Your task to perform on an android device: Open Google Maps Image 0: 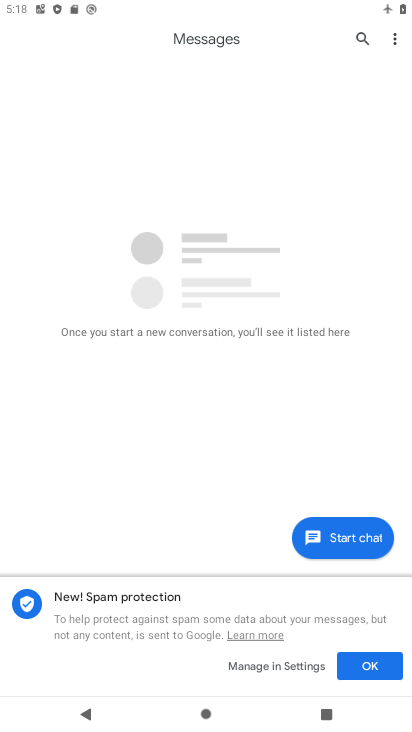
Step 0: press back button
Your task to perform on an android device: Open Google Maps Image 1: 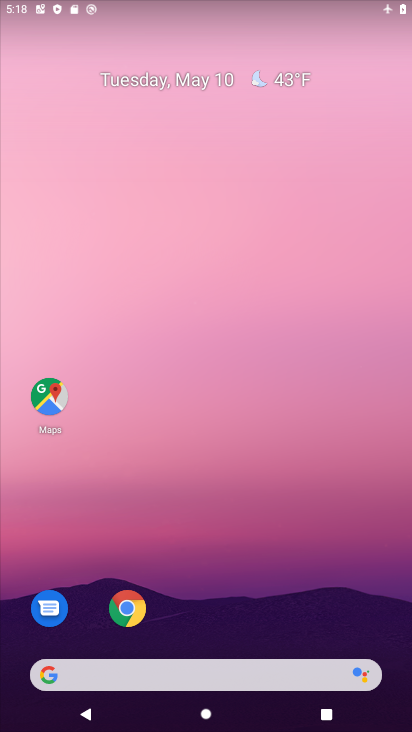
Step 1: drag from (188, 623) to (268, 225)
Your task to perform on an android device: Open Google Maps Image 2: 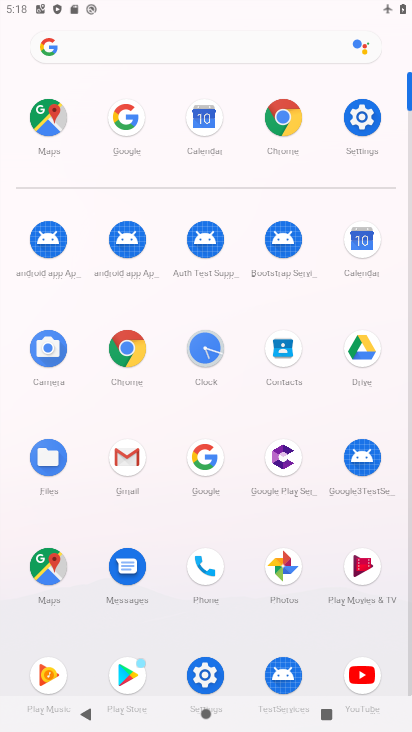
Step 2: click (52, 108)
Your task to perform on an android device: Open Google Maps Image 3: 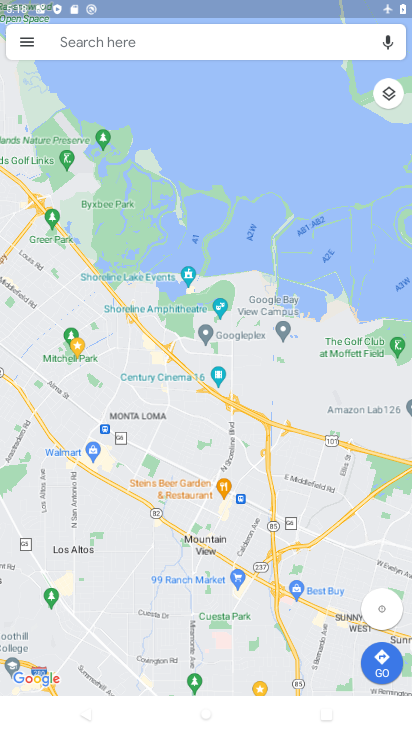
Step 3: task complete